Your task to perform on an android device: move a message to another label in the gmail app Image 0: 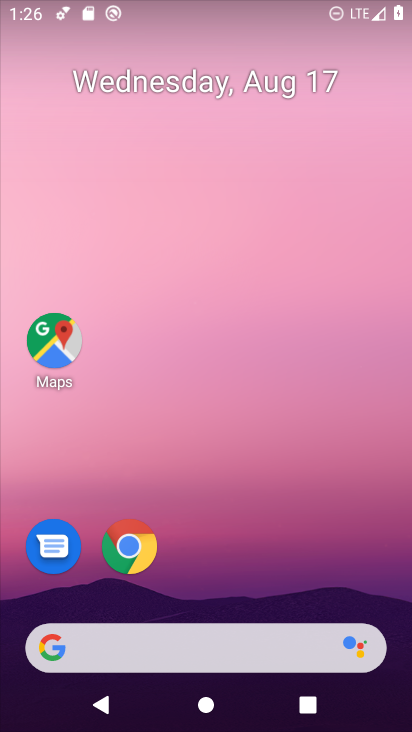
Step 0: drag from (244, 572) to (209, 173)
Your task to perform on an android device: move a message to another label in the gmail app Image 1: 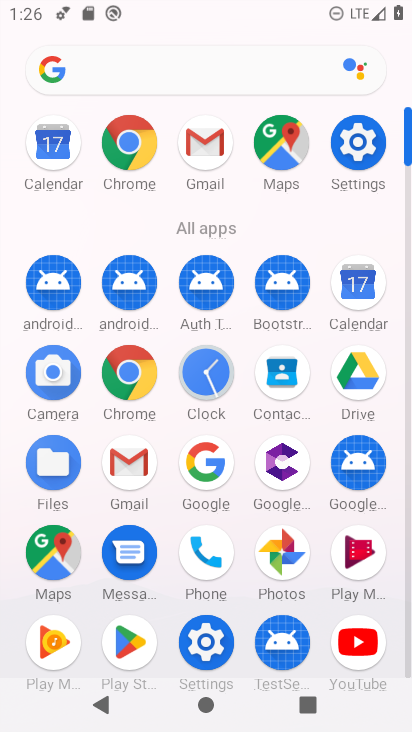
Step 1: click (134, 460)
Your task to perform on an android device: move a message to another label in the gmail app Image 2: 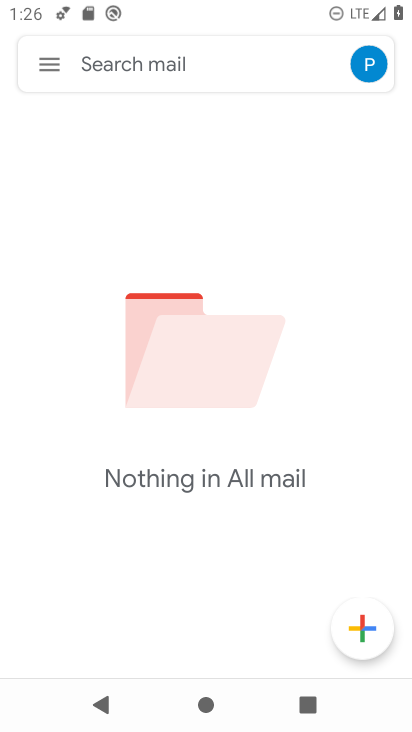
Step 2: click (48, 58)
Your task to perform on an android device: move a message to another label in the gmail app Image 3: 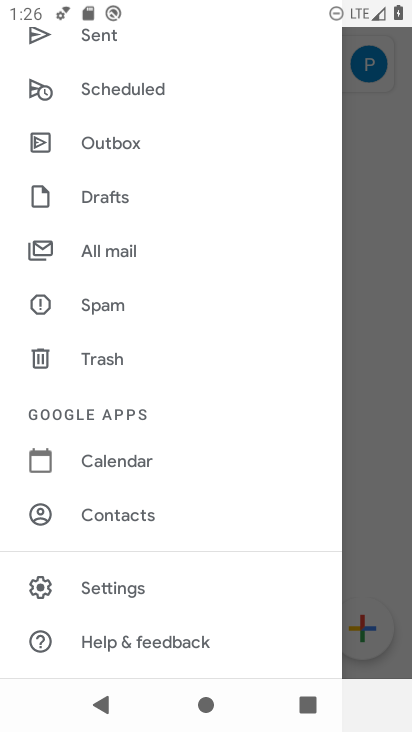
Step 3: click (113, 249)
Your task to perform on an android device: move a message to another label in the gmail app Image 4: 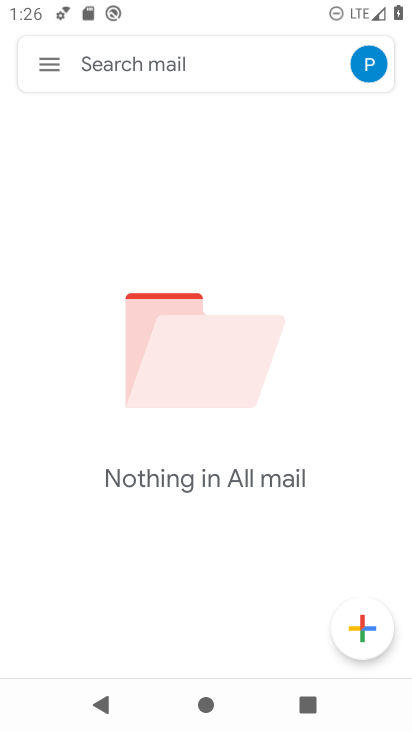
Step 4: task complete